Your task to perform on an android device: toggle translation in the chrome app Image 0: 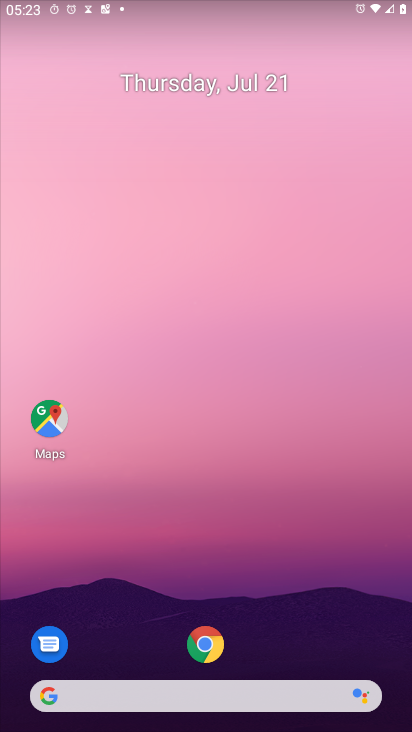
Step 0: press home button
Your task to perform on an android device: toggle translation in the chrome app Image 1: 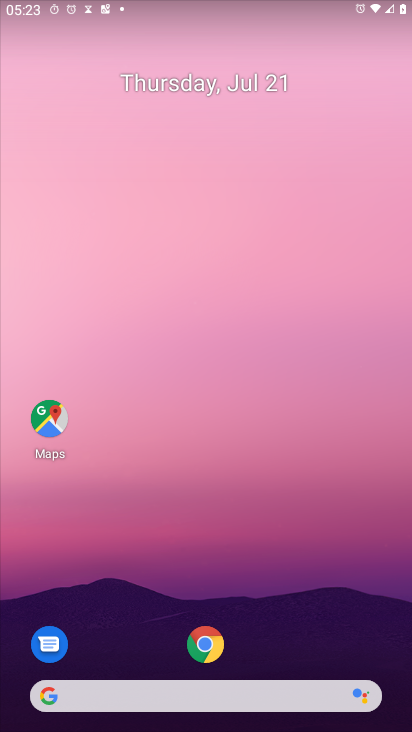
Step 1: click (210, 639)
Your task to perform on an android device: toggle translation in the chrome app Image 2: 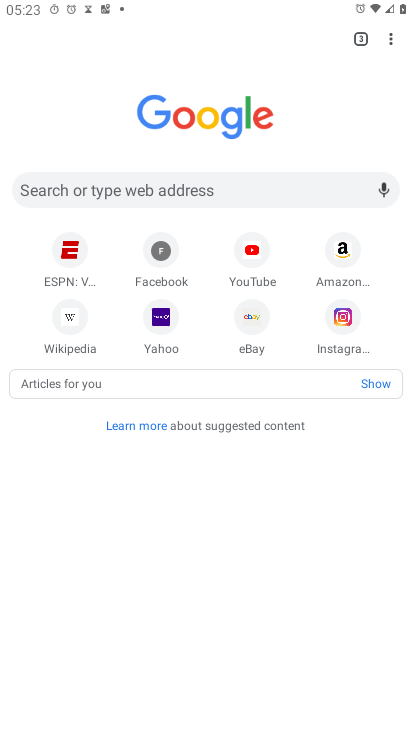
Step 2: drag from (393, 33) to (263, 383)
Your task to perform on an android device: toggle translation in the chrome app Image 3: 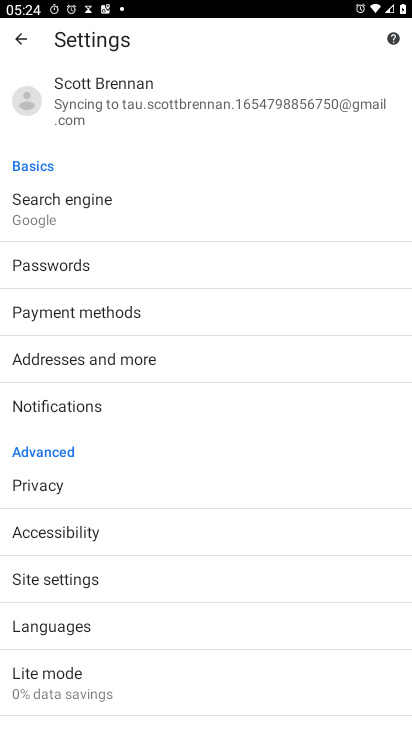
Step 3: click (62, 621)
Your task to perform on an android device: toggle translation in the chrome app Image 4: 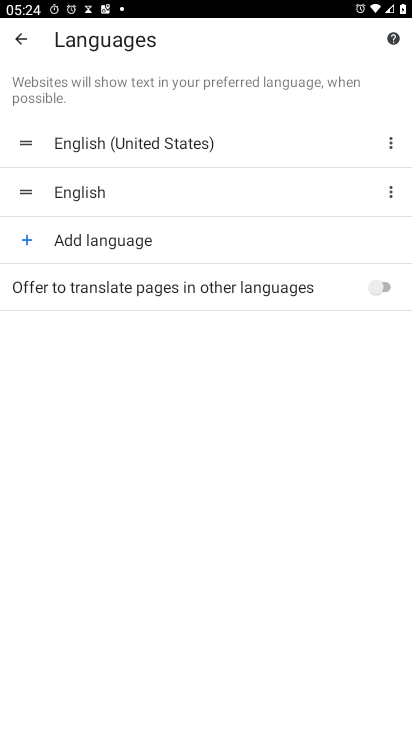
Step 4: click (373, 284)
Your task to perform on an android device: toggle translation in the chrome app Image 5: 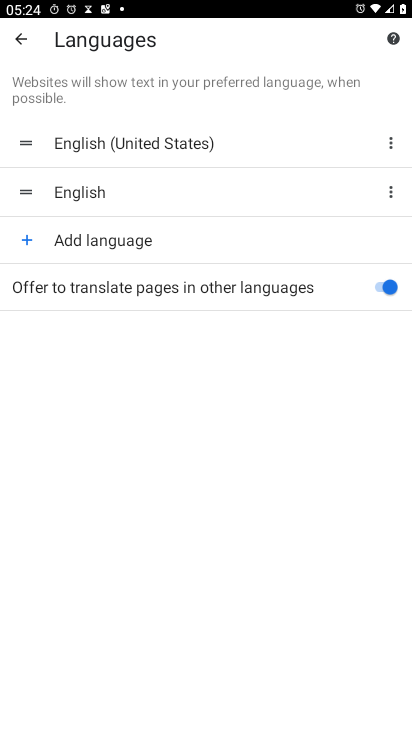
Step 5: task complete